Your task to perform on an android device: turn off notifications in google photos Image 0: 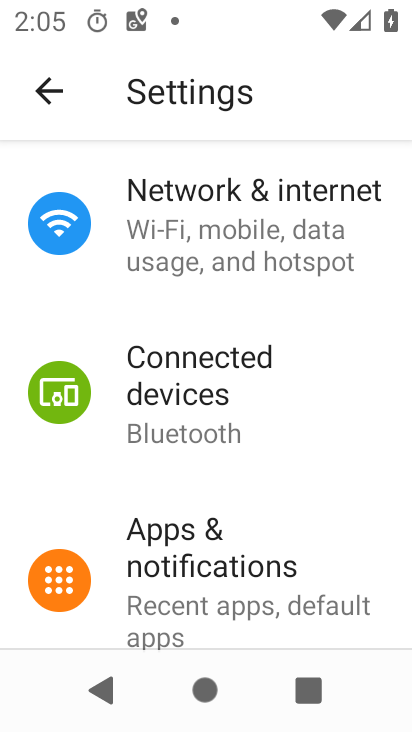
Step 0: press home button
Your task to perform on an android device: turn off notifications in google photos Image 1: 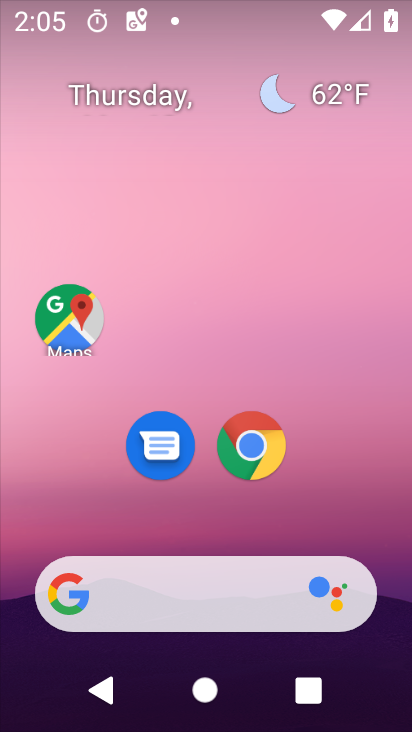
Step 1: drag from (113, 619) to (167, 177)
Your task to perform on an android device: turn off notifications in google photos Image 2: 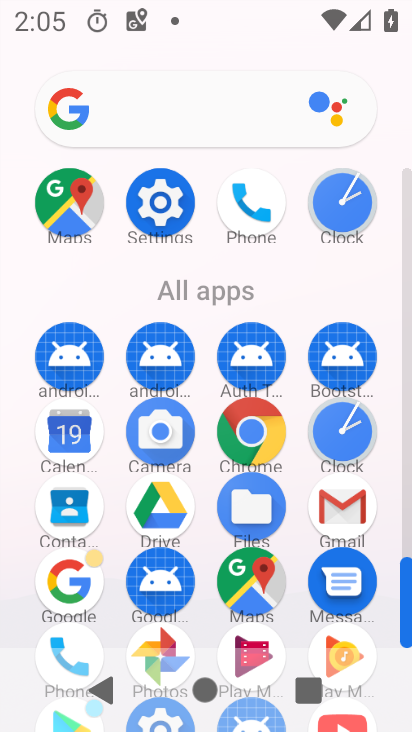
Step 2: click (167, 630)
Your task to perform on an android device: turn off notifications in google photos Image 3: 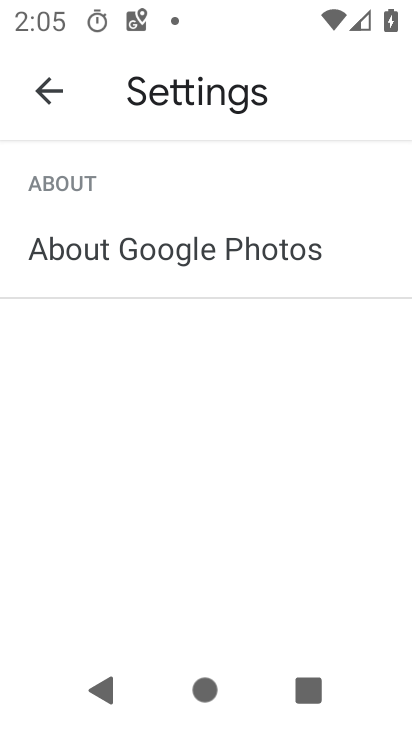
Step 3: click (55, 83)
Your task to perform on an android device: turn off notifications in google photos Image 4: 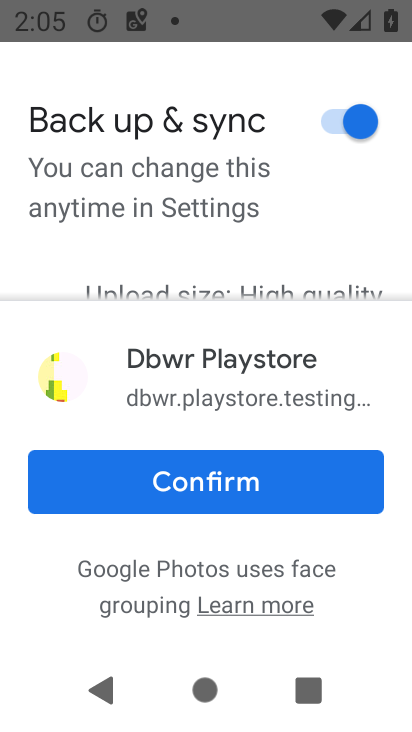
Step 4: click (214, 466)
Your task to perform on an android device: turn off notifications in google photos Image 5: 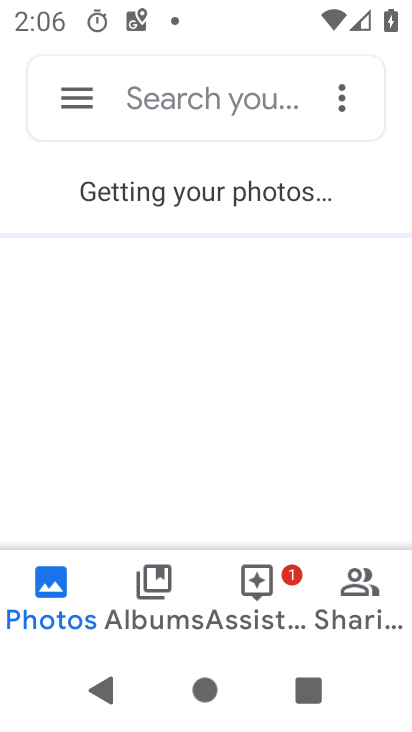
Step 5: click (67, 110)
Your task to perform on an android device: turn off notifications in google photos Image 6: 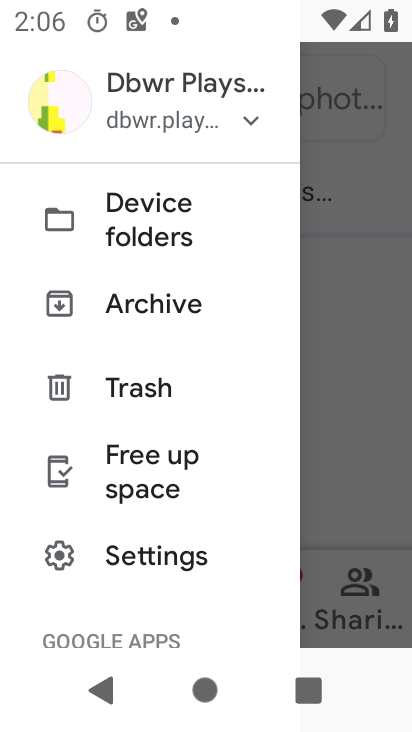
Step 6: click (120, 556)
Your task to perform on an android device: turn off notifications in google photos Image 7: 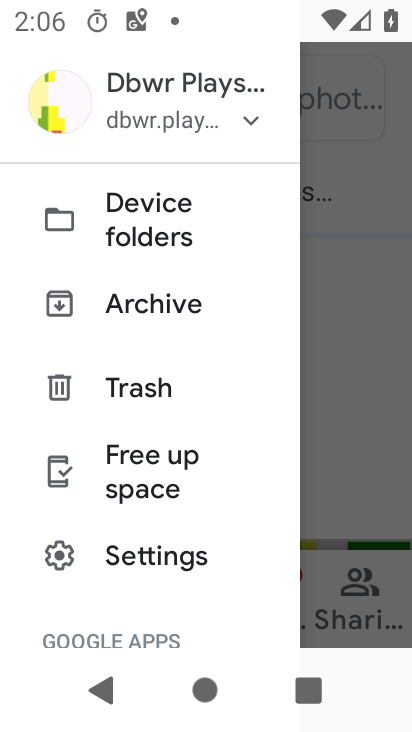
Step 7: click (173, 552)
Your task to perform on an android device: turn off notifications in google photos Image 8: 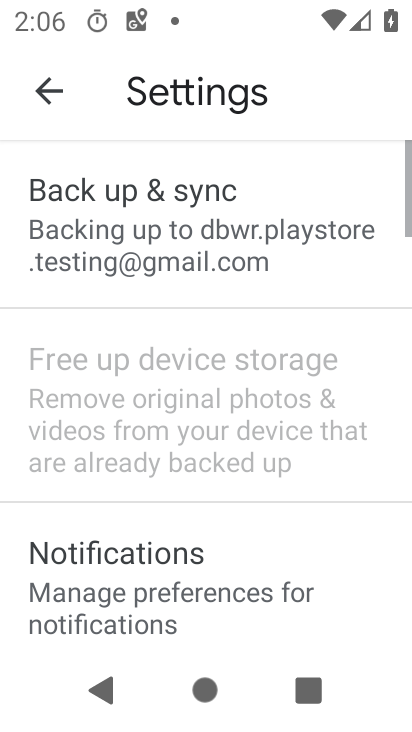
Step 8: drag from (183, 573) to (158, 164)
Your task to perform on an android device: turn off notifications in google photos Image 9: 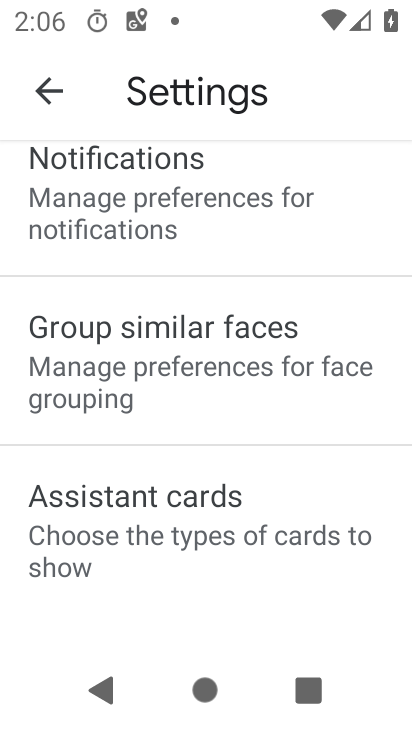
Step 9: drag from (171, 544) to (148, 190)
Your task to perform on an android device: turn off notifications in google photos Image 10: 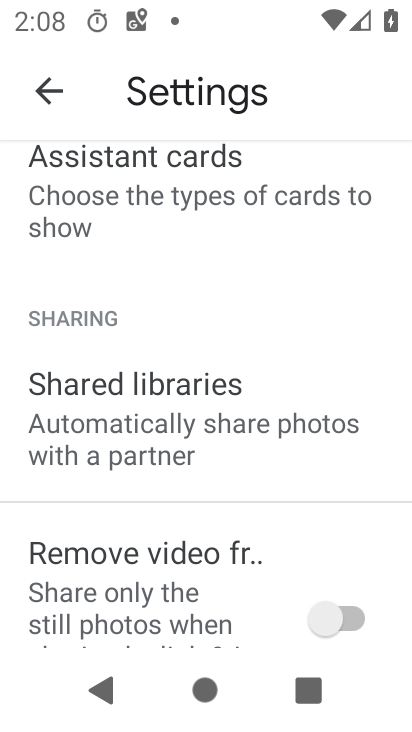
Step 10: click (32, 88)
Your task to perform on an android device: turn off notifications in google photos Image 11: 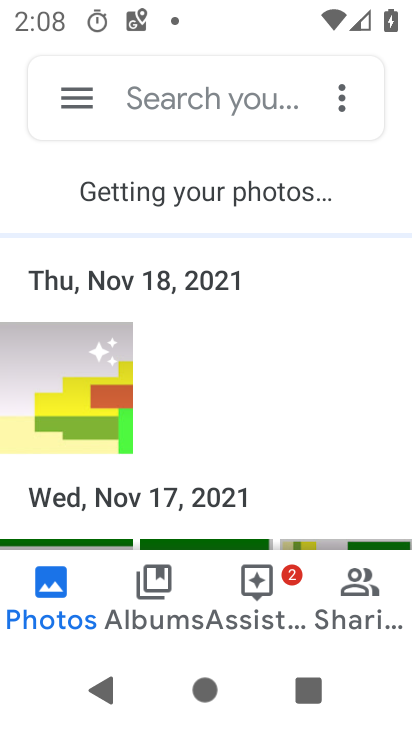
Step 11: click (65, 79)
Your task to perform on an android device: turn off notifications in google photos Image 12: 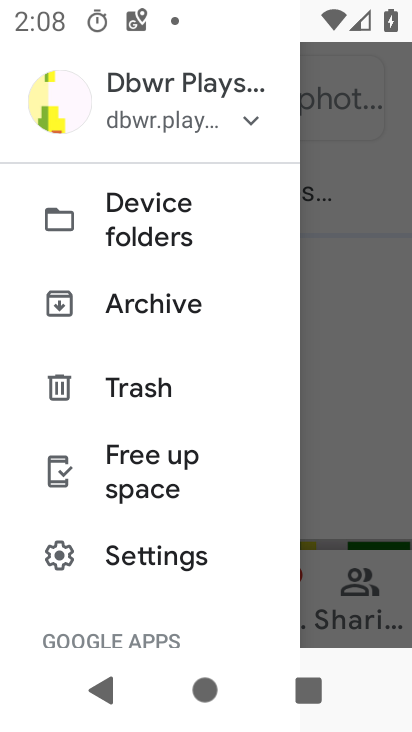
Step 12: click (157, 562)
Your task to perform on an android device: turn off notifications in google photos Image 13: 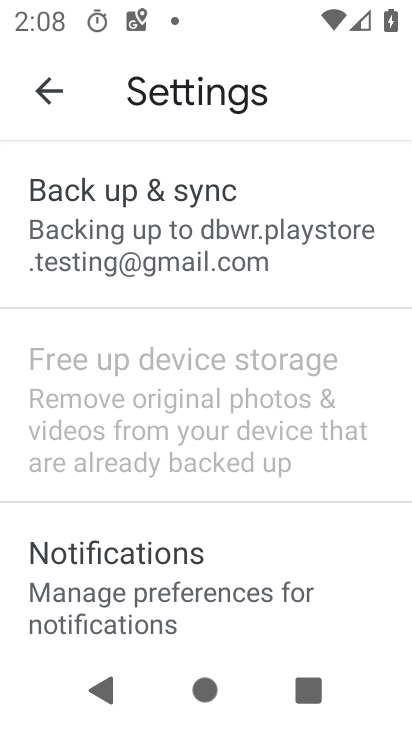
Step 13: drag from (190, 532) to (164, 275)
Your task to perform on an android device: turn off notifications in google photos Image 14: 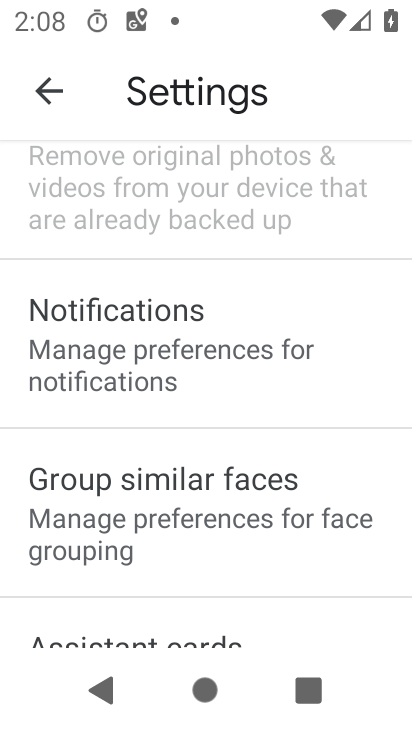
Step 14: click (257, 307)
Your task to perform on an android device: turn off notifications in google photos Image 15: 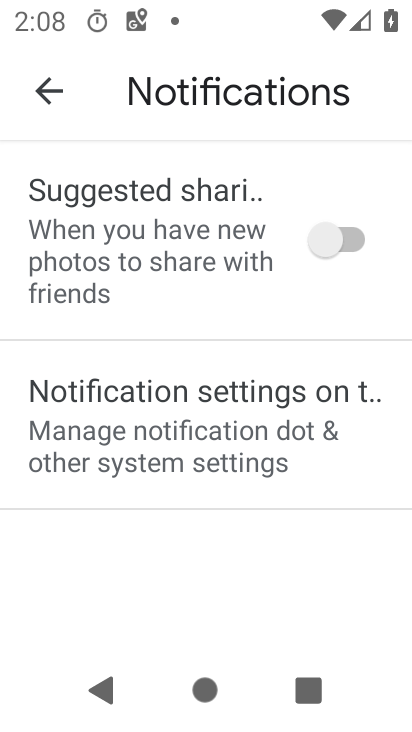
Step 15: click (222, 396)
Your task to perform on an android device: turn off notifications in google photos Image 16: 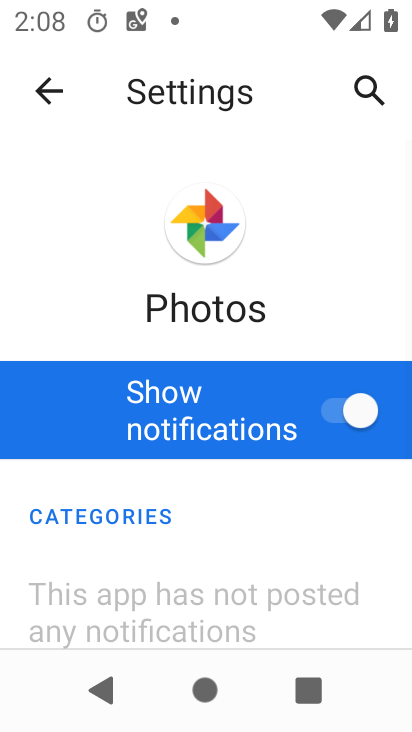
Step 16: click (361, 429)
Your task to perform on an android device: turn off notifications in google photos Image 17: 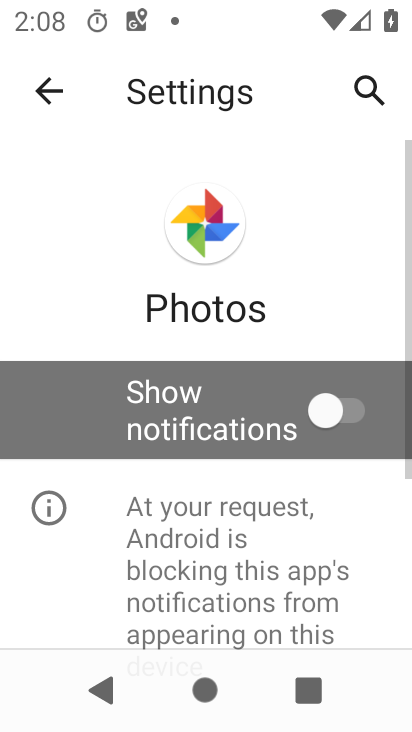
Step 17: task complete